Your task to perform on an android device: turn on data saver in the chrome app Image 0: 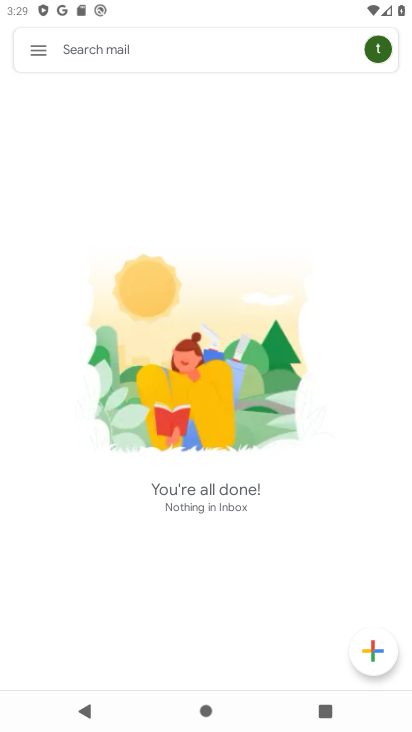
Step 0: press home button
Your task to perform on an android device: turn on data saver in the chrome app Image 1: 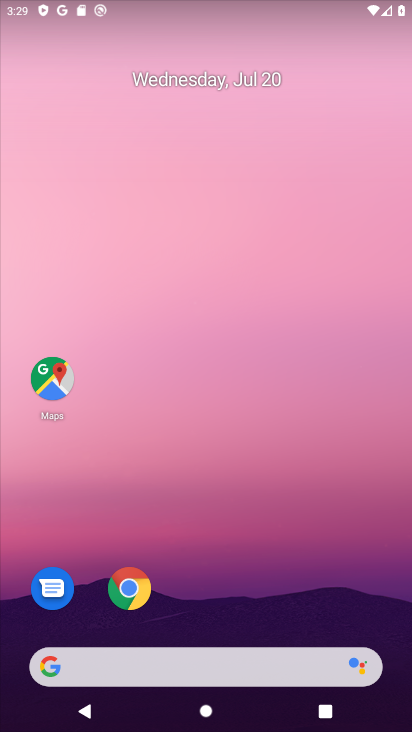
Step 1: click (127, 605)
Your task to perform on an android device: turn on data saver in the chrome app Image 2: 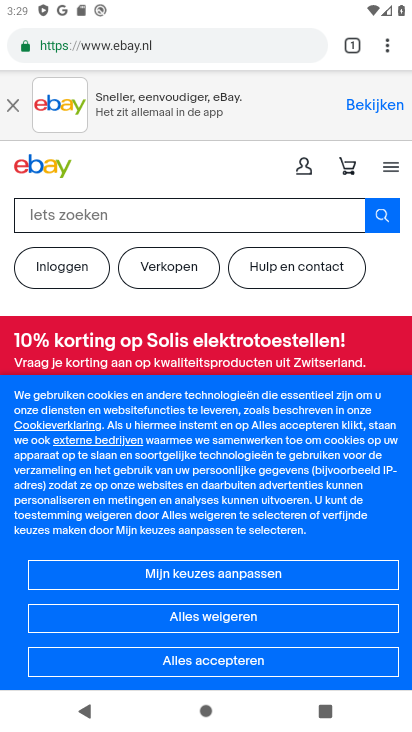
Step 2: click (393, 54)
Your task to perform on an android device: turn on data saver in the chrome app Image 3: 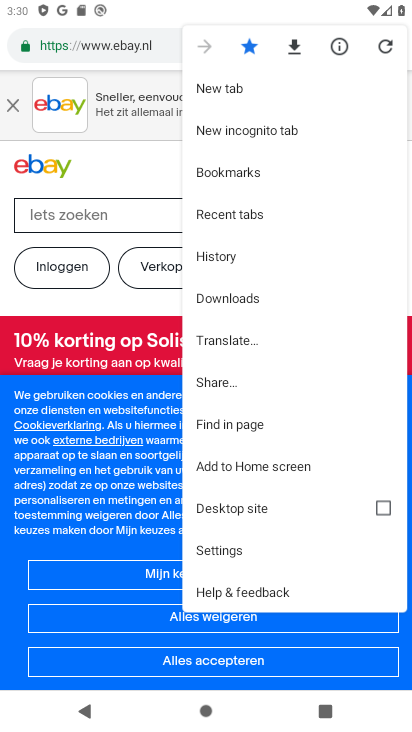
Step 3: click (250, 553)
Your task to perform on an android device: turn on data saver in the chrome app Image 4: 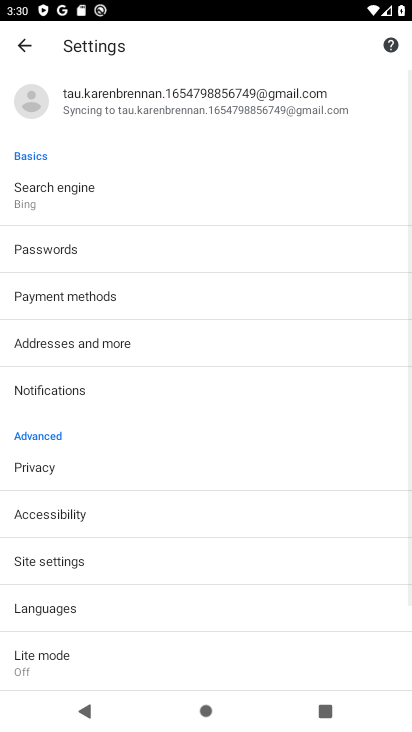
Step 4: drag from (250, 553) to (275, 147)
Your task to perform on an android device: turn on data saver in the chrome app Image 5: 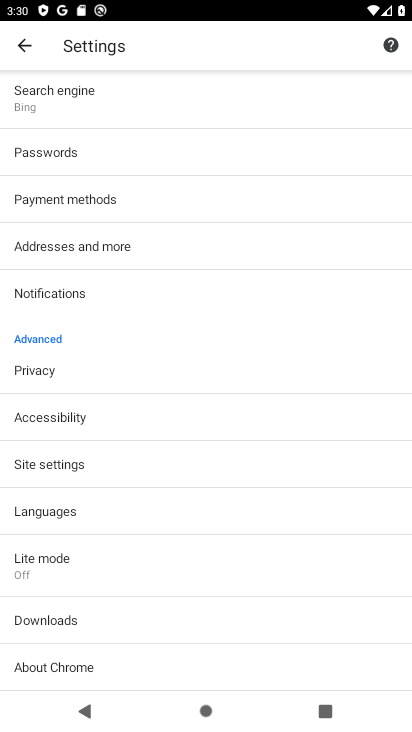
Step 5: click (76, 565)
Your task to perform on an android device: turn on data saver in the chrome app Image 6: 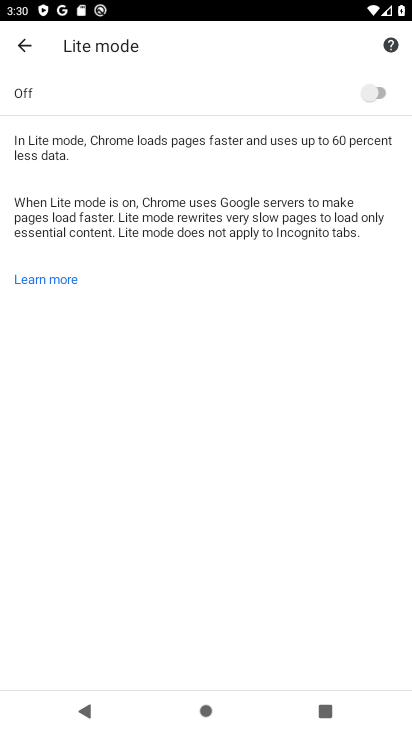
Step 6: task complete